Your task to perform on an android device: install app "Venmo" Image 0: 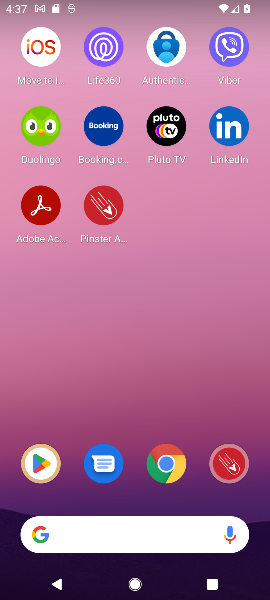
Step 0: press home button
Your task to perform on an android device: install app "Venmo" Image 1: 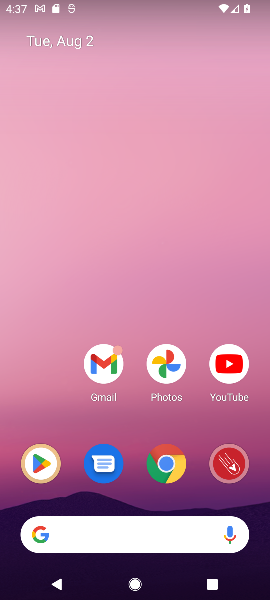
Step 1: click (36, 462)
Your task to perform on an android device: install app "Venmo" Image 2: 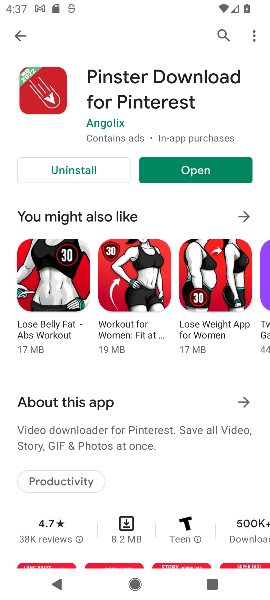
Step 2: click (217, 33)
Your task to perform on an android device: install app "Venmo" Image 3: 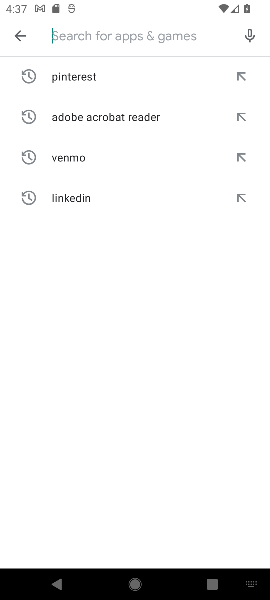
Step 3: type "Venmo"
Your task to perform on an android device: install app "Venmo" Image 4: 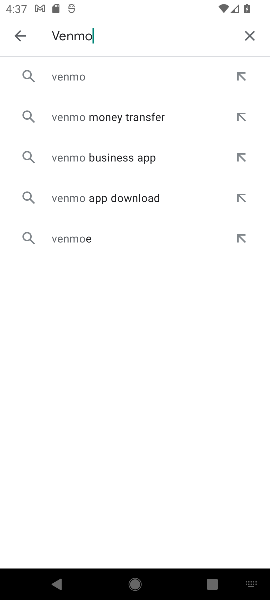
Step 4: click (82, 75)
Your task to perform on an android device: install app "Venmo" Image 5: 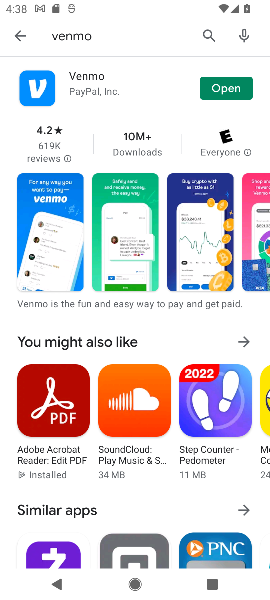
Step 5: task complete